Your task to perform on an android device: find photos in the google photos app Image 0: 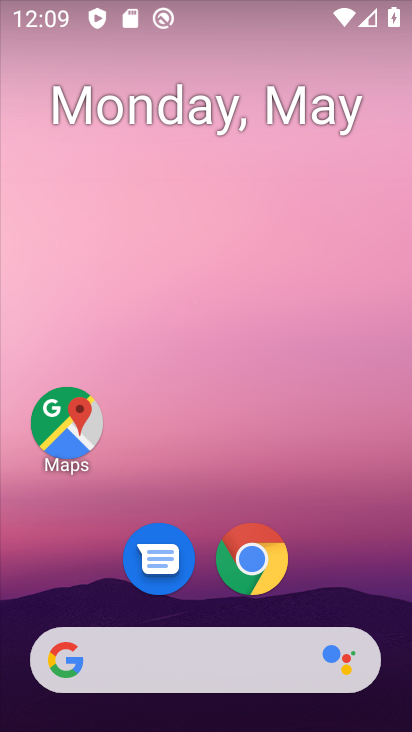
Step 0: drag from (335, 521) to (229, 1)
Your task to perform on an android device: find photos in the google photos app Image 1: 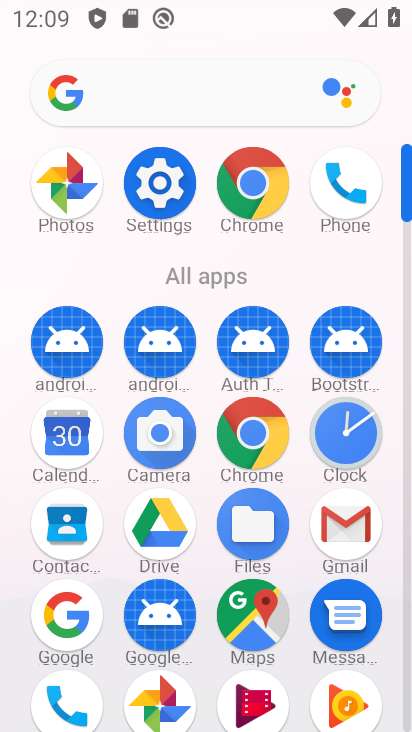
Step 1: drag from (9, 520) to (17, 169)
Your task to perform on an android device: find photos in the google photos app Image 2: 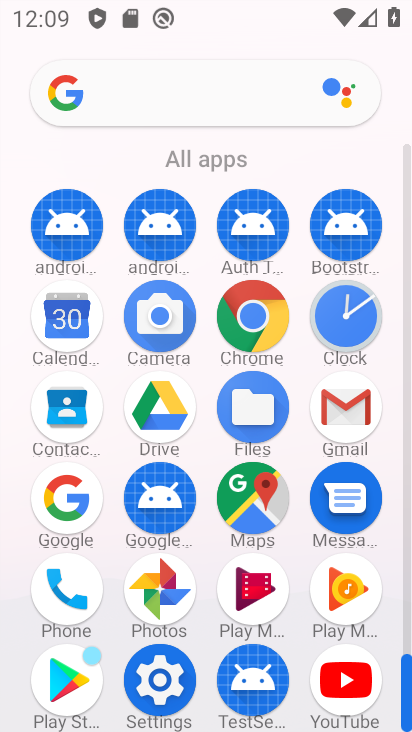
Step 2: click (165, 583)
Your task to perform on an android device: find photos in the google photos app Image 3: 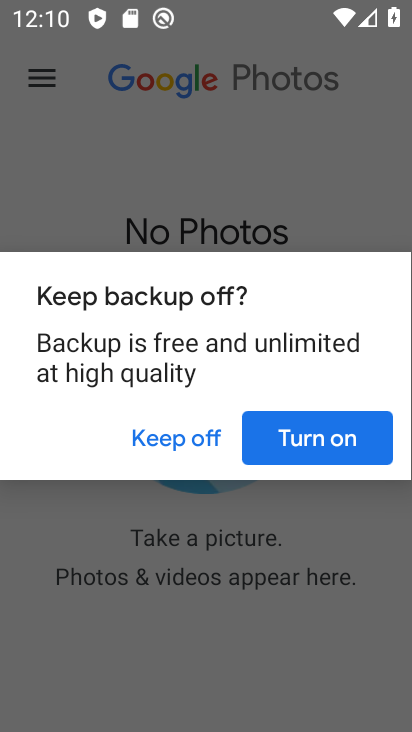
Step 3: click (337, 426)
Your task to perform on an android device: find photos in the google photos app Image 4: 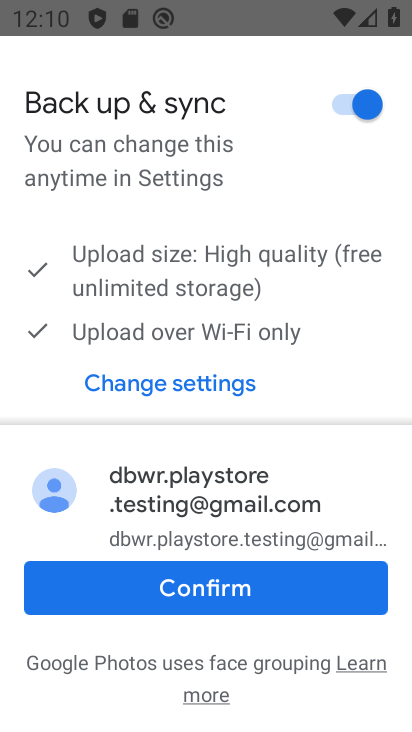
Step 4: click (196, 584)
Your task to perform on an android device: find photos in the google photos app Image 5: 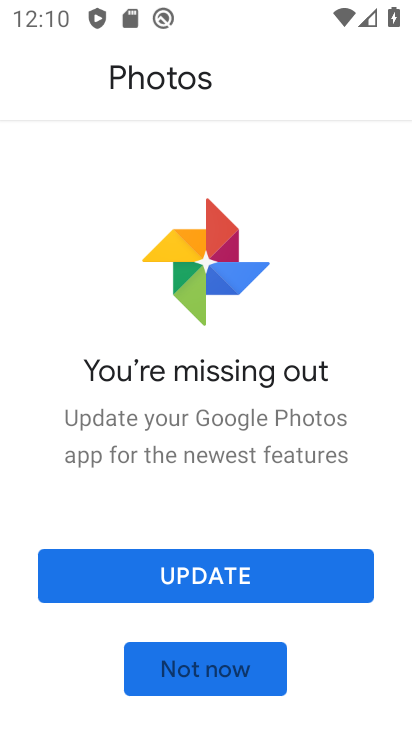
Step 5: click (205, 582)
Your task to perform on an android device: find photos in the google photos app Image 6: 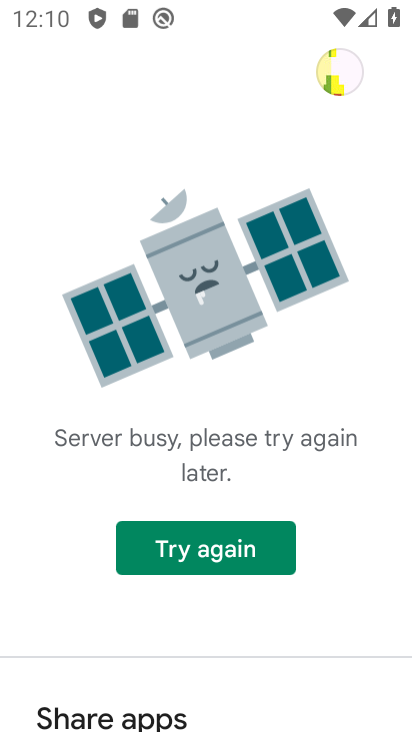
Step 6: task complete